Your task to perform on an android device: Open Amazon Image 0: 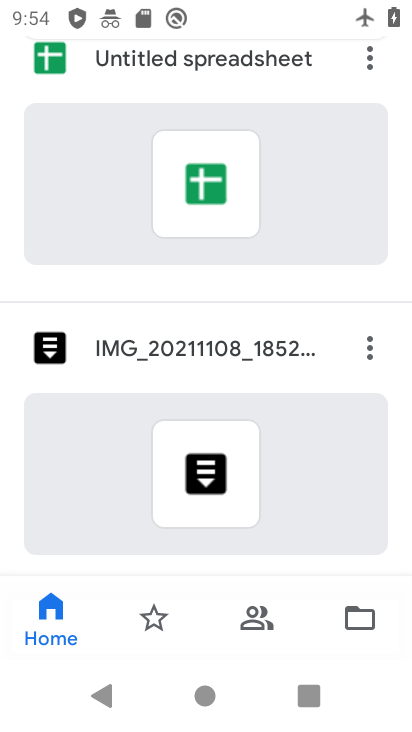
Step 0: press home button
Your task to perform on an android device: Open Amazon Image 1: 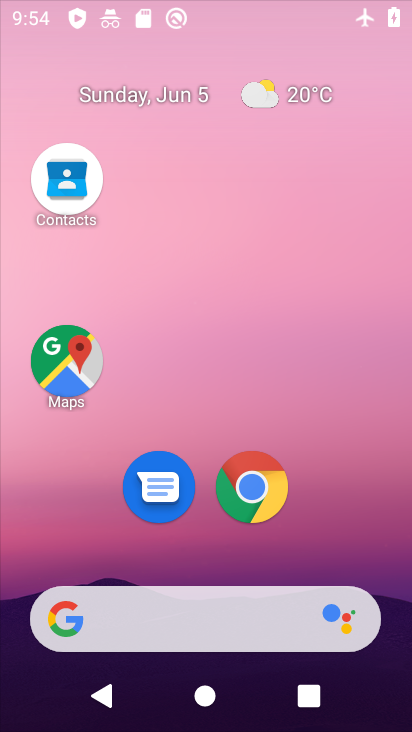
Step 1: drag from (226, 664) to (249, 144)
Your task to perform on an android device: Open Amazon Image 2: 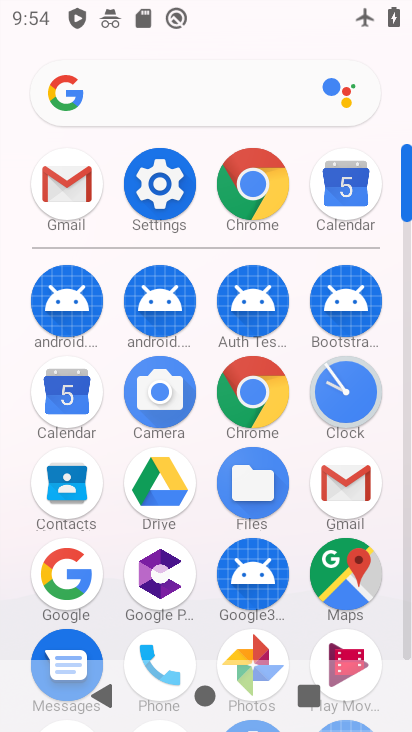
Step 2: click (263, 197)
Your task to perform on an android device: Open Amazon Image 3: 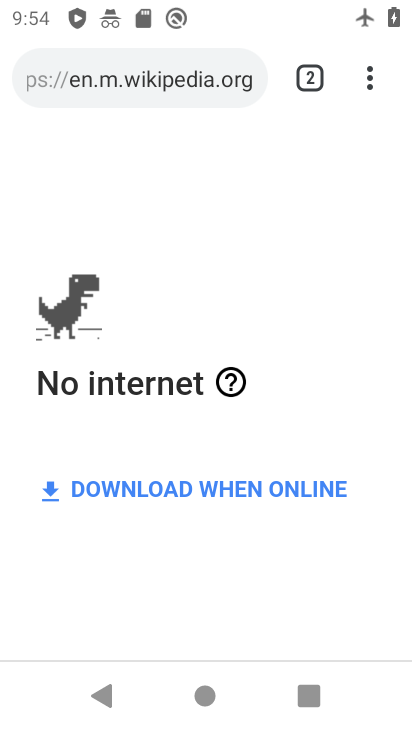
Step 3: click (238, 79)
Your task to perform on an android device: Open Amazon Image 4: 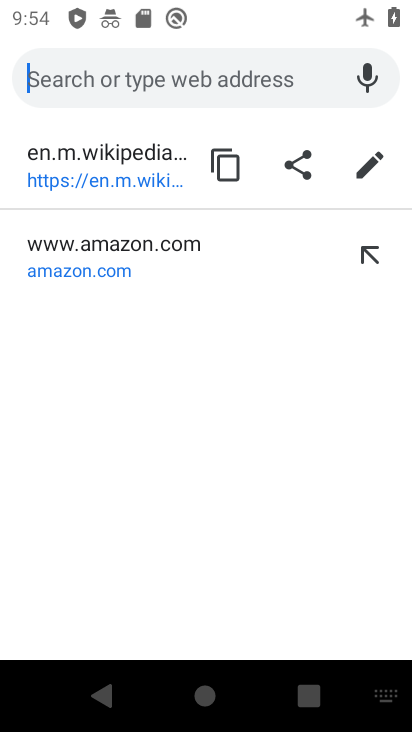
Step 4: click (220, 258)
Your task to perform on an android device: Open Amazon Image 5: 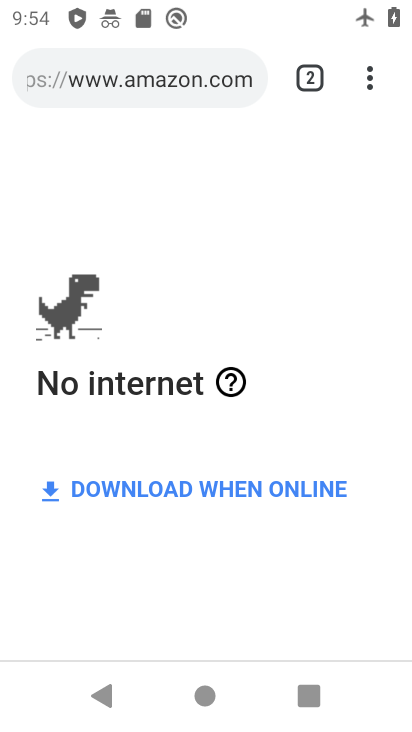
Step 5: task complete